Your task to perform on an android device: Open Chrome and go to the settings page Image 0: 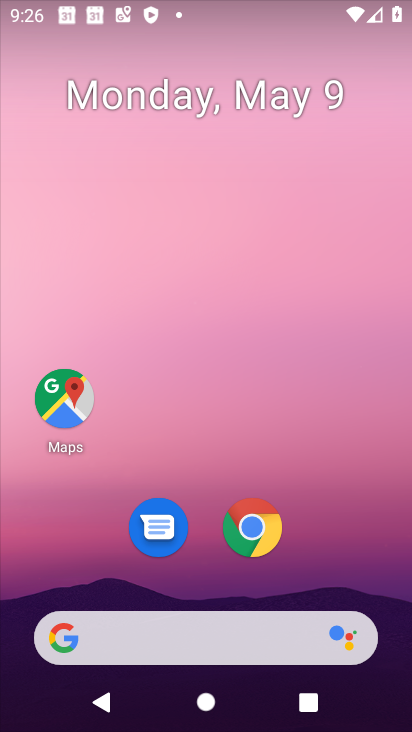
Step 0: click (242, 528)
Your task to perform on an android device: Open Chrome and go to the settings page Image 1: 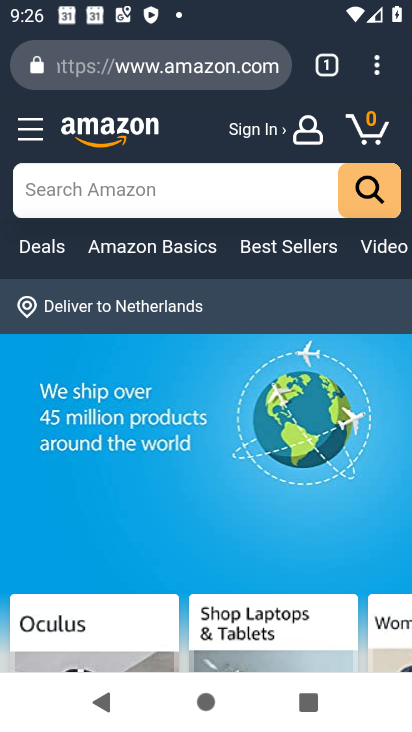
Step 1: click (382, 65)
Your task to perform on an android device: Open Chrome and go to the settings page Image 2: 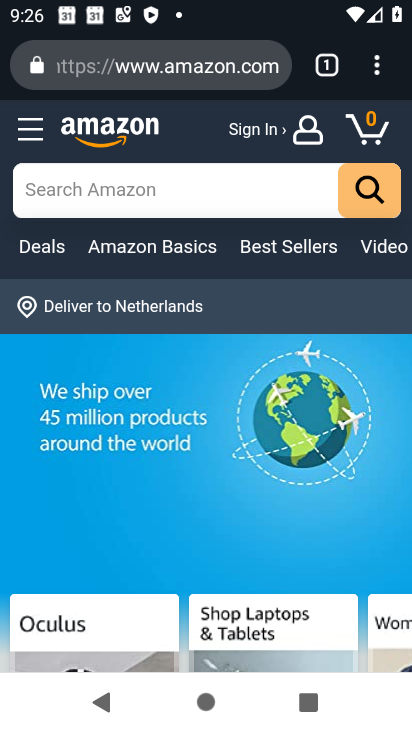
Step 2: click (377, 66)
Your task to perform on an android device: Open Chrome and go to the settings page Image 3: 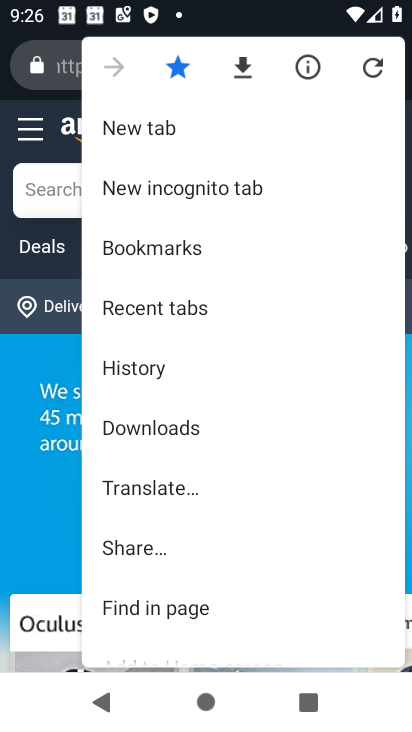
Step 3: drag from (162, 618) to (206, 254)
Your task to perform on an android device: Open Chrome and go to the settings page Image 4: 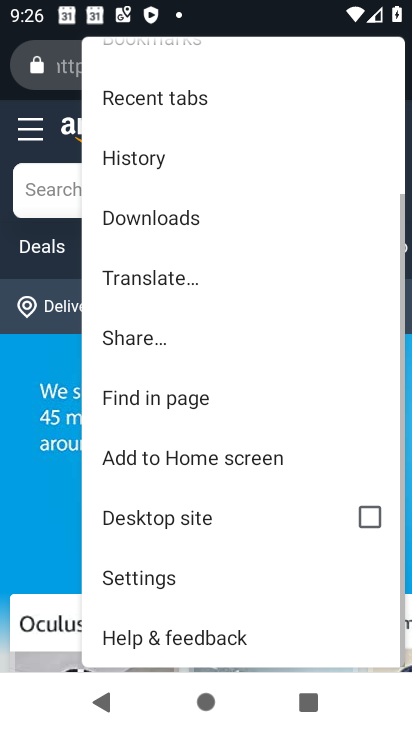
Step 4: click (166, 573)
Your task to perform on an android device: Open Chrome and go to the settings page Image 5: 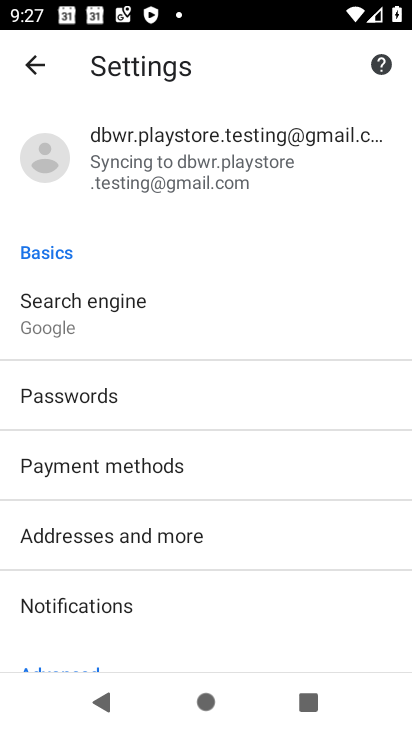
Step 5: drag from (108, 668) to (139, 391)
Your task to perform on an android device: Open Chrome and go to the settings page Image 6: 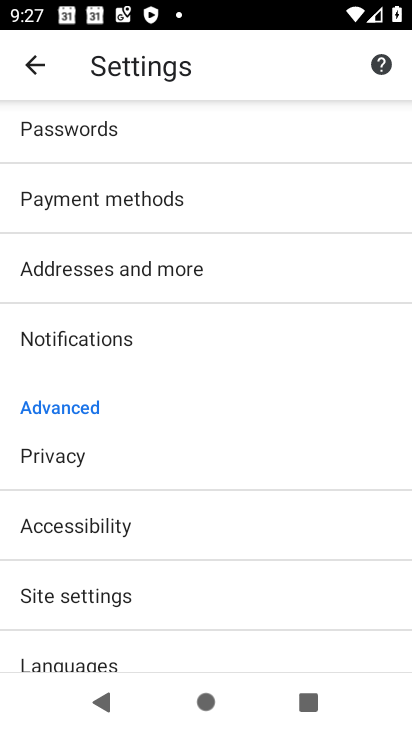
Step 6: drag from (109, 642) to (108, 368)
Your task to perform on an android device: Open Chrome and go to the settings page Image 7: 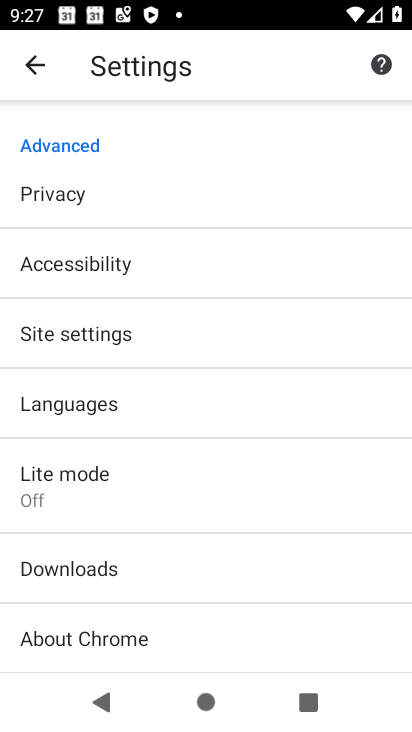
Step 7: click (89, 340)
Your task to perform on an android device: Open Chrome and go to the settings page Image 8: 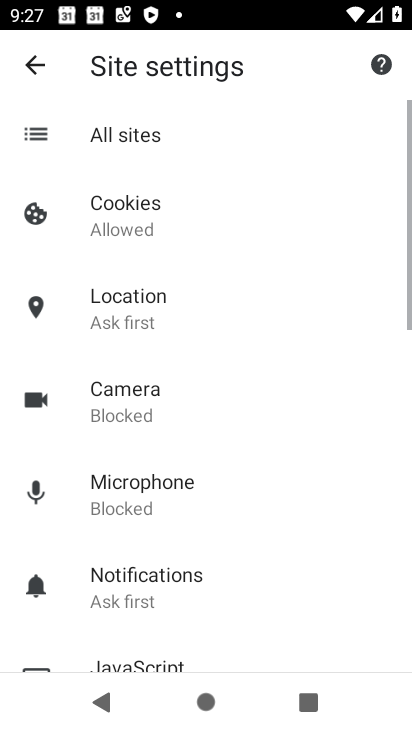
Step 8: task complete